Your task to perform on an android device: choose inbox layout in the gmail app Image 0: 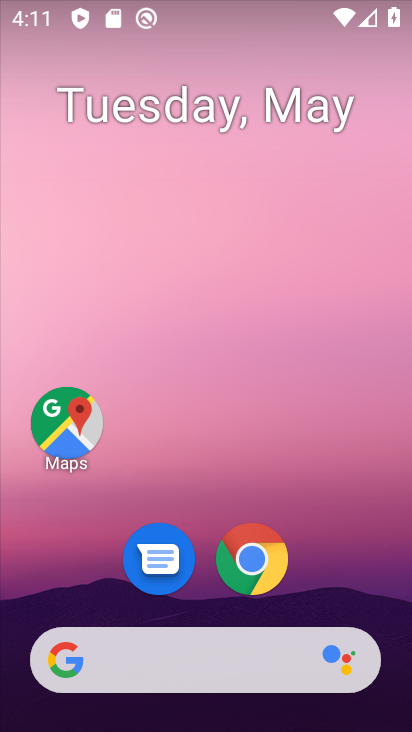
Step 0: drag from (325, 578) to (290, 180)
Your task to perform on an android device: choose inbox layout in the gmail app Image 1: 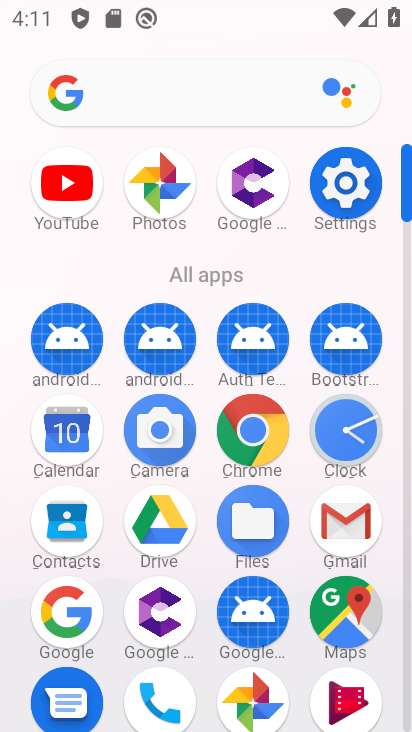
Step 1: click (338, 532)
Your task to perform on an android device: choose inbox layout in the gmail app Image 2: 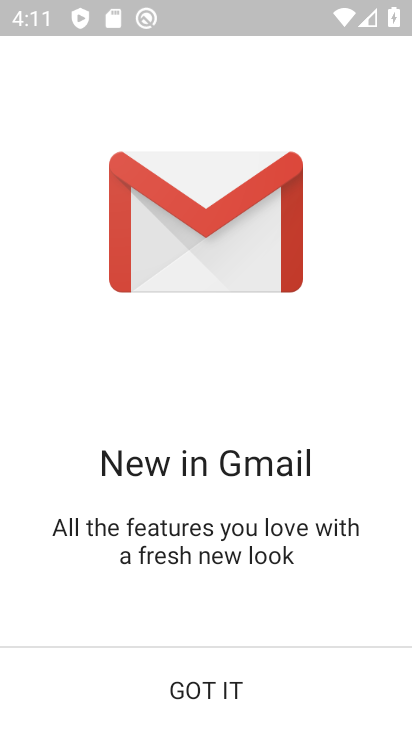
Step 2: click (220, 699)
Your task to perform on an android device: choose inbox layout in the gmail app Image 3: 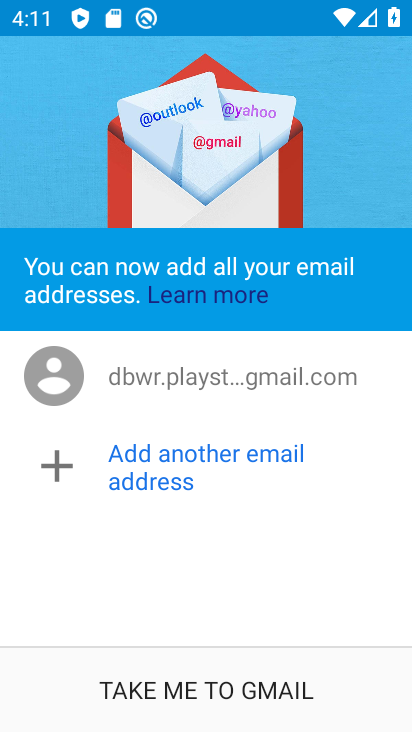
Step 3: click (177, 661)
Your task to perform on an android device: choose inbox layout in the gmail app Image 4: 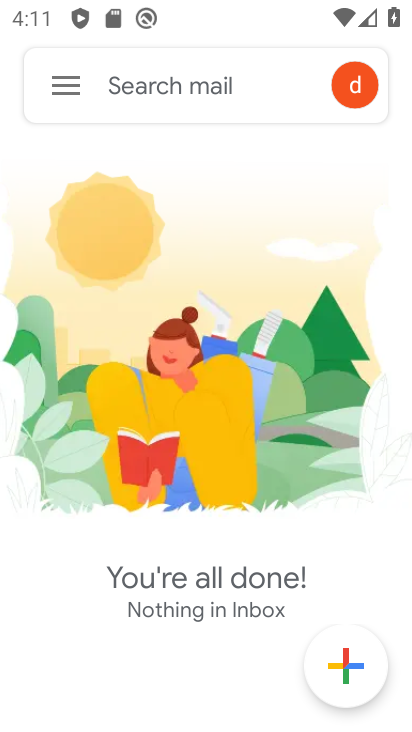
Step 4: click (53, 93)
Your task to perform on an android device: choose inbox layout in the gmail app Image 5: 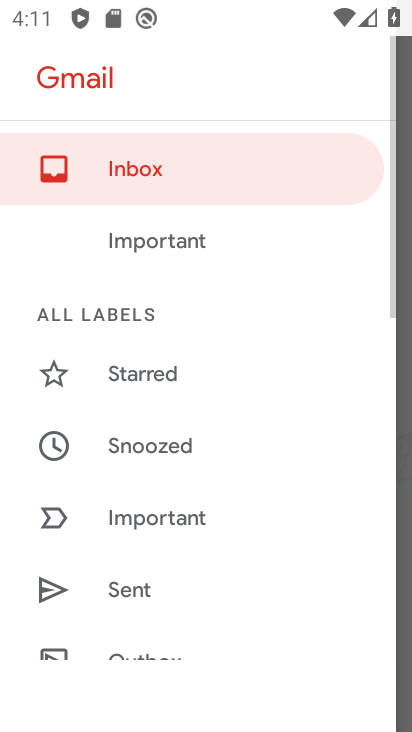
Step 5: drag from (118, 554) to (158, 91)
Your task to perform on an android device: choose inbox layout in the gmail app Image 6: 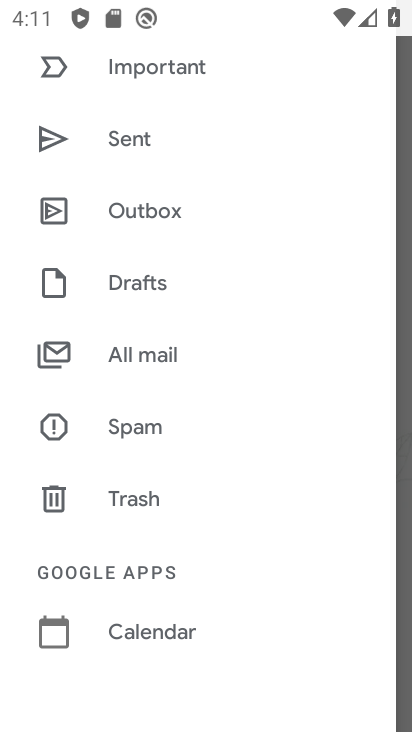
Step 6: drag from (149, 587) to (196, 161)
Your task to perform on an android device: choose inbox layout in the gmail app Image 7: 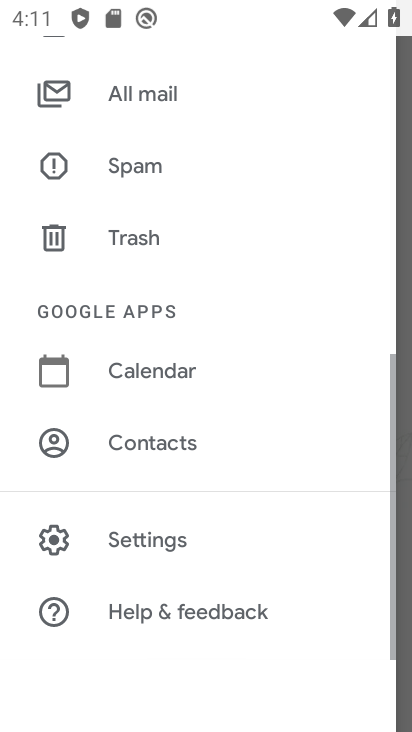
Step 7: click (165, 545)
Your task to perform on an android device: choose inbox layout in the gmail app Image 8: 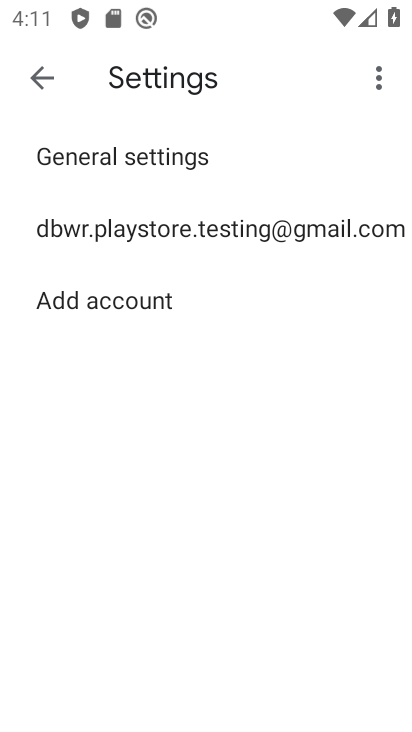
Step 8: click (117, 227)
Your task to perform on an android device: choose inbox layout in the gmail app Image 9: 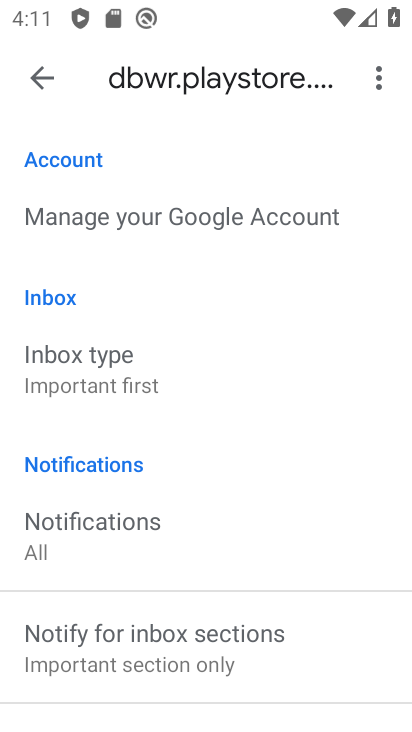
Step 9: click (138, 367)
Your task to perform on an android device: choose inbox layout in the gmail app Image 10: 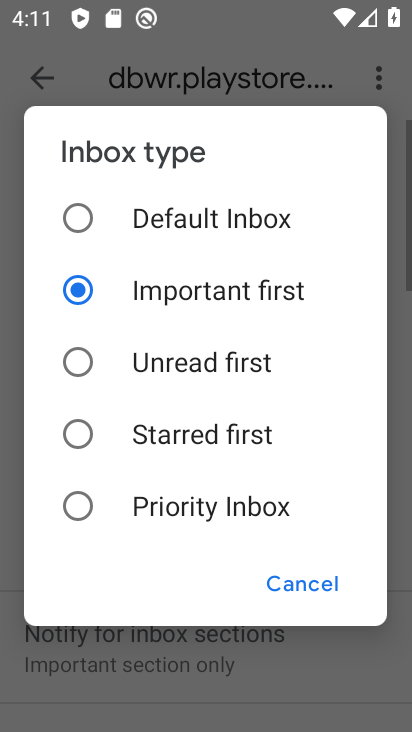
Step 10: click (142, 198)
Your task to perform on an android device: choose inbox layout in the gmail app Image 11: 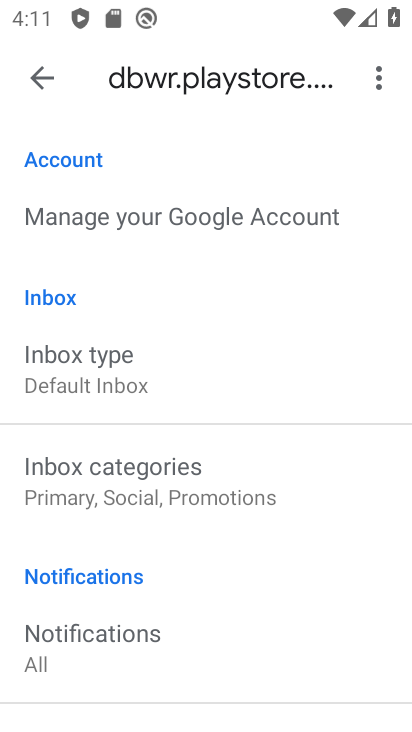
Step 11: task complete